Your task to perform on an android device: What's on my calendar tomorrow? Image 0: 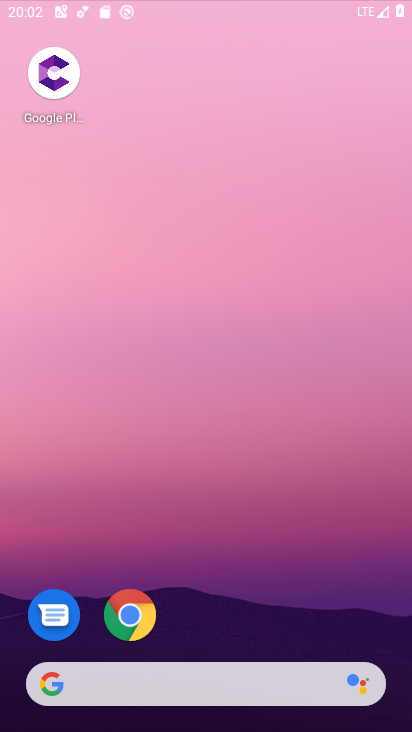
Step 0: click (339, 17)
Your task to perform on an android device: What's on my calendar tomorrow? Image 1: 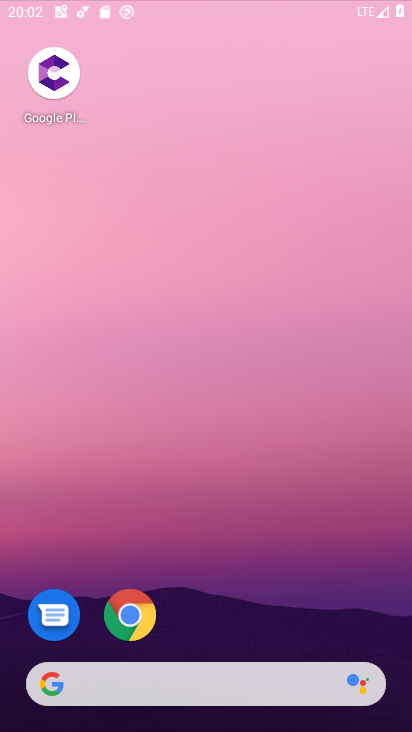
Step 1: drag from (198, 655) to (297, 118)
Your task to perform on an android device: What's on my calendar tomorrow? Image 2: 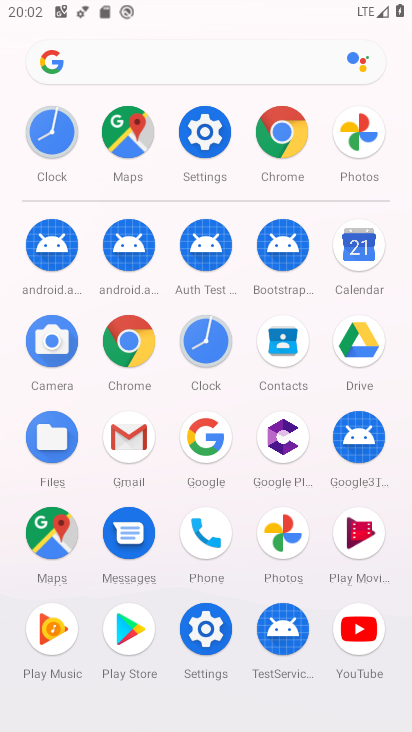
Step 2: drag from (172, 609) to (217, 119)
Your task to perform on an android device: What's on my calendar tomorrow? Image 3: 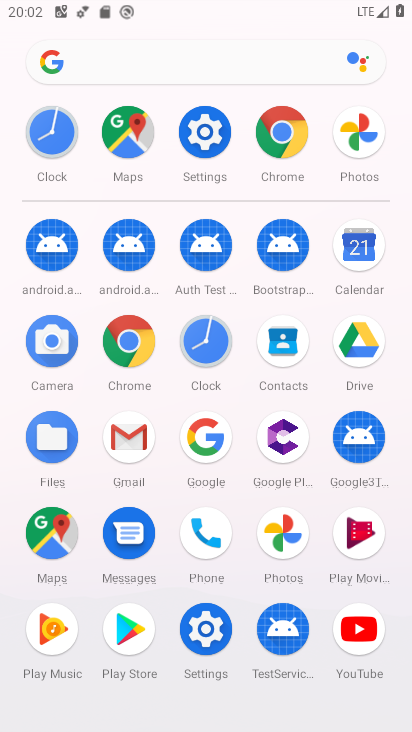
Step 3: drag from (168, 594) to (218, 137)
Your task to perform on an android device: What's on my calendar tomorrow? Image 4: 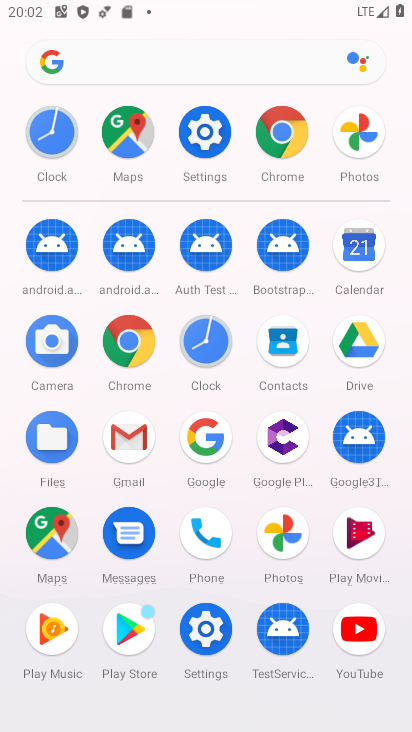
Step 4: click (362, 247)
Your task to perform on an android device: What's on my calendar tomorrow? Image 5: 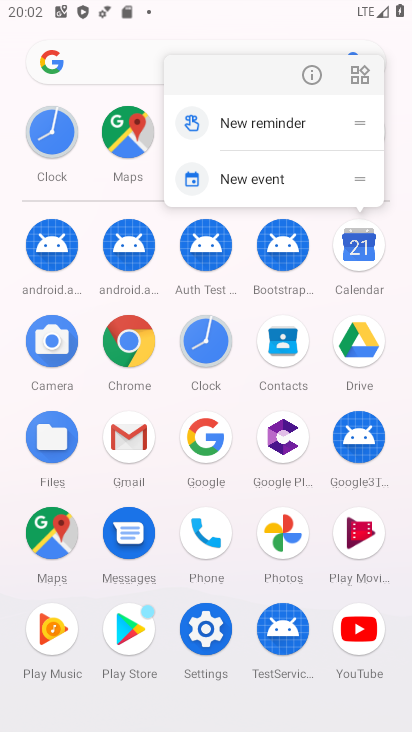
Step 5: click (310, 77)
Your task to perform on an android device: What's on my calendar tomorrow? Image 6: 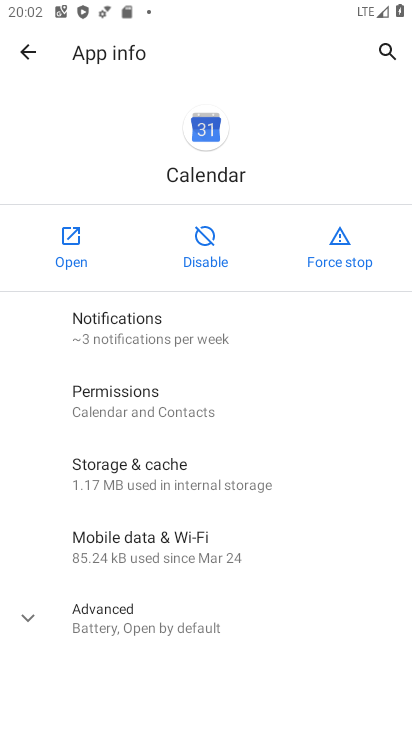
Step 6: click (79, 239)
Your task to perform on an android device: What's on my calendar tomorrow? Image 7: 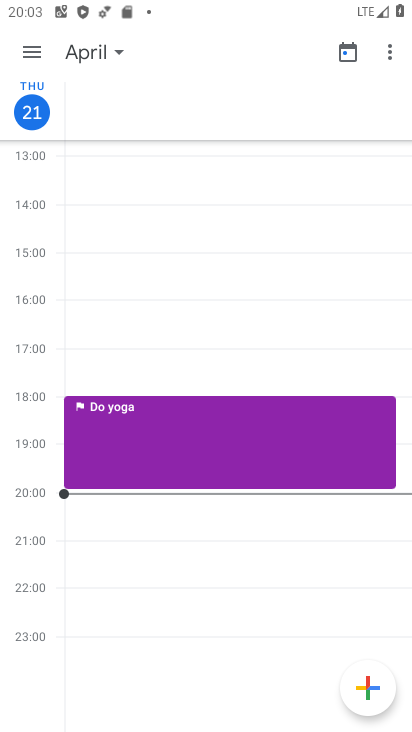
Step 7: click (43, 49)
Your task to perform on an android device: What's on my calendar tomorrow? Image 8: 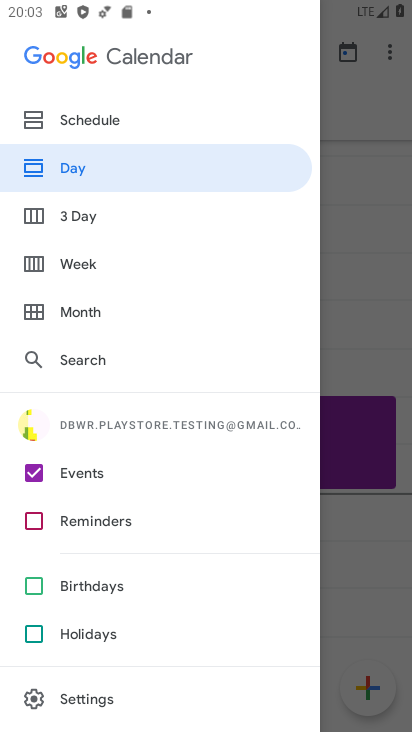
Step 8: drag from (148, 546) to (182, 142)
Your task to perform on an android device: What's on my calendar tomorrow? Image 9: 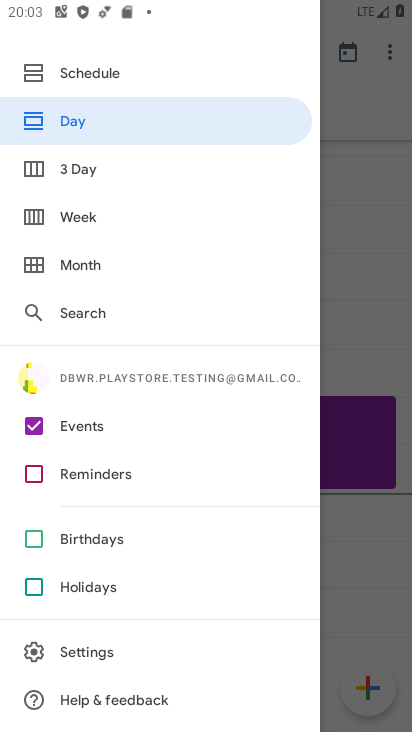
Step 9: drag from (121, 639) to (187, 190)
Your task to perform on an android device: What's on my calendar tomorrow? Image 10: 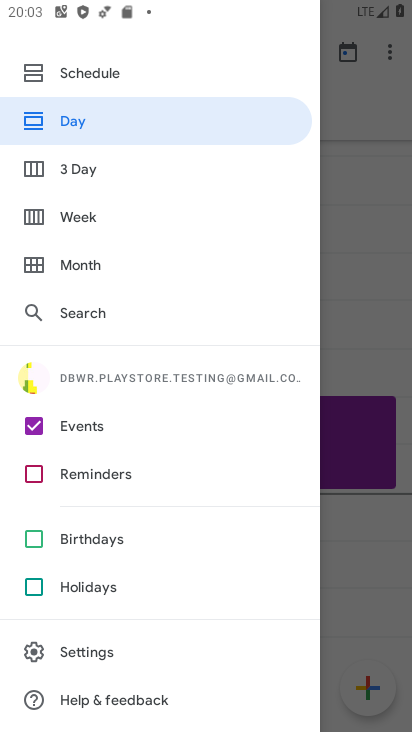
Step 10: drag from (118, 657) to (179, 37)
Your task to perform on an android device: What's on my calendar tomorrow? Image 11: 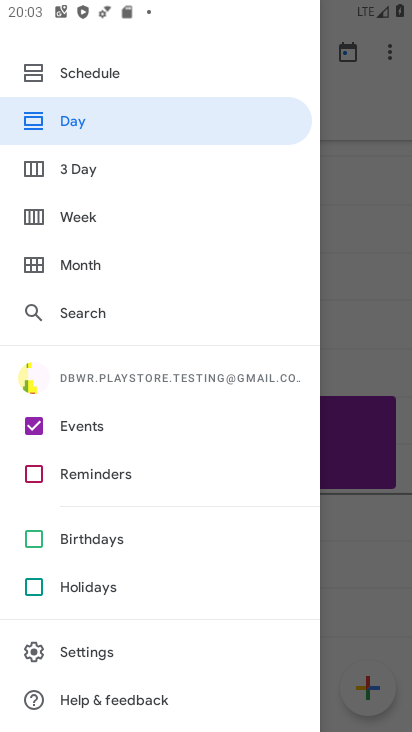
Step 11: drag from (143, 153) to (198, 721)
Your task to perform on an android device: What's on my calendar tomorrow? Image 12: 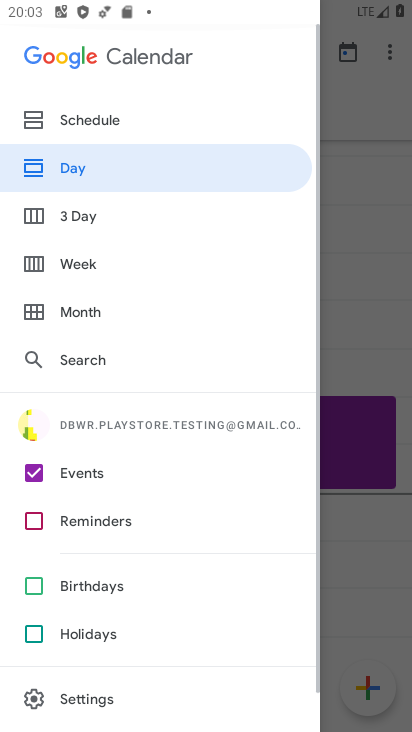
Step 12: drag from (199, 661) to (210, 131)
Your task to perform on an android device: What's on my calendar tomorrow? Image 13: 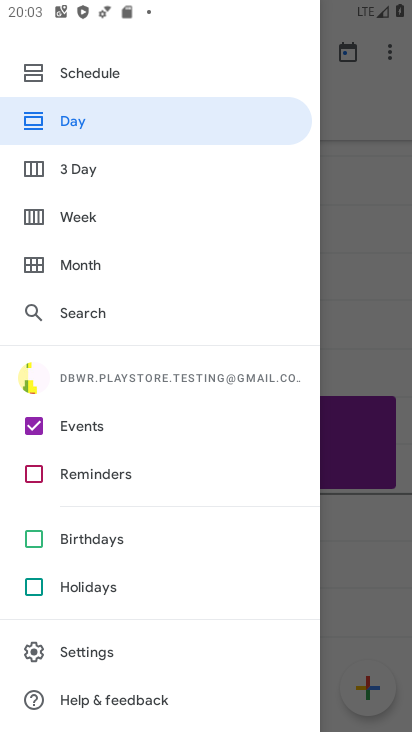
Step 13: drag from (136, 594) to (203, 225)
Your task to perform on an android device: What's on my calendar tomorrow? Image 14: 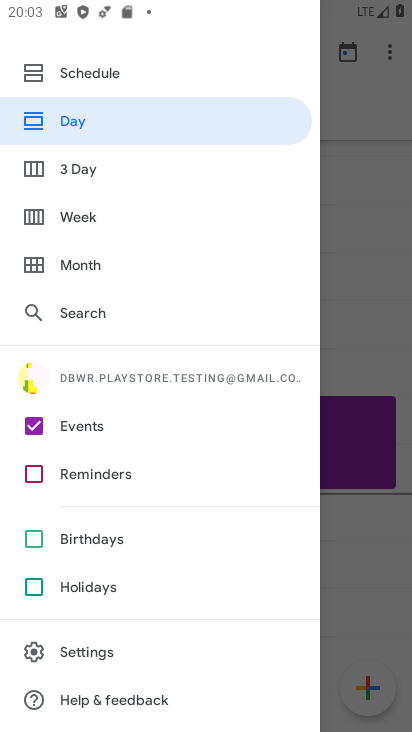
Step 14: drag from (120, 215) to (146, 690)
Your task to perform on an android device: What's on my calendar tomorrow? Image 15: 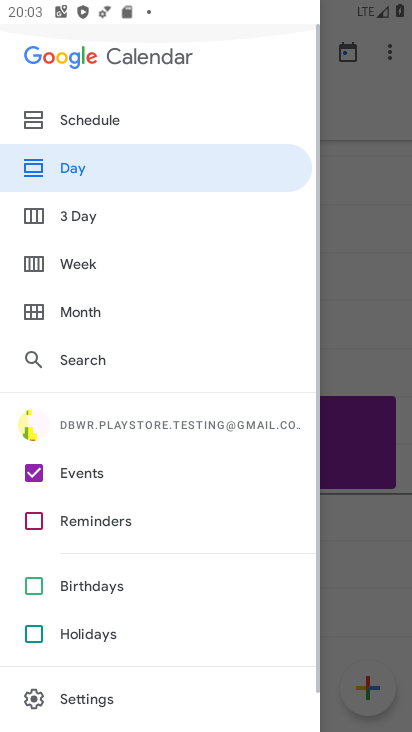
Step 15: drag from (149, 685) to (258, 174)
Your task to perform on an android device: What's on my calendar tomorrow? Image 16: 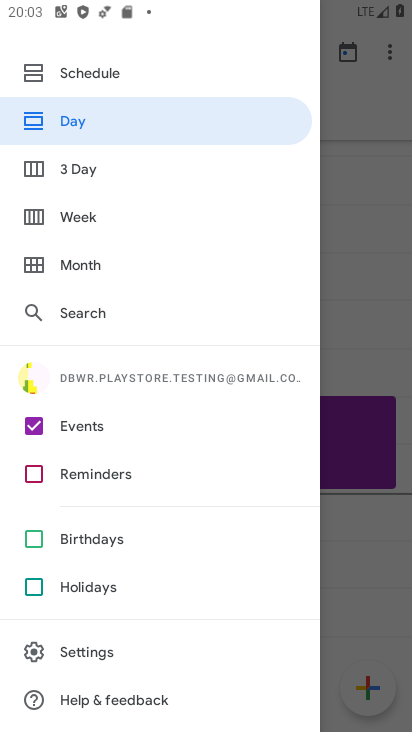
Step 16: click (354, 109)
Your task to perform on an android device: What's on my calendar tomorrow? Image 17: 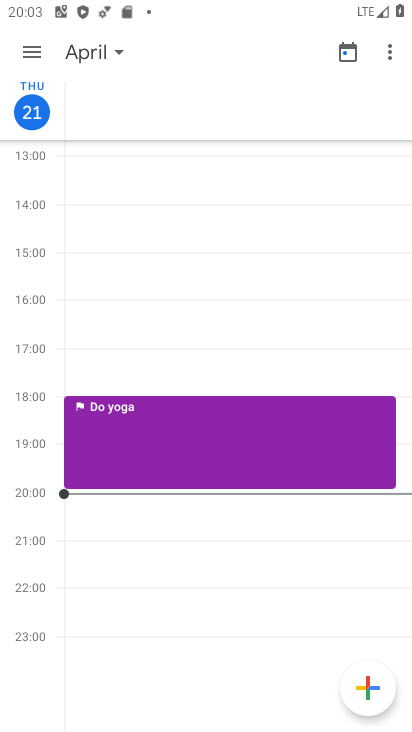
Step 17: click (102, 28)
Your task to perform on an android device: What's on my calendar tomorrow? Image 18: 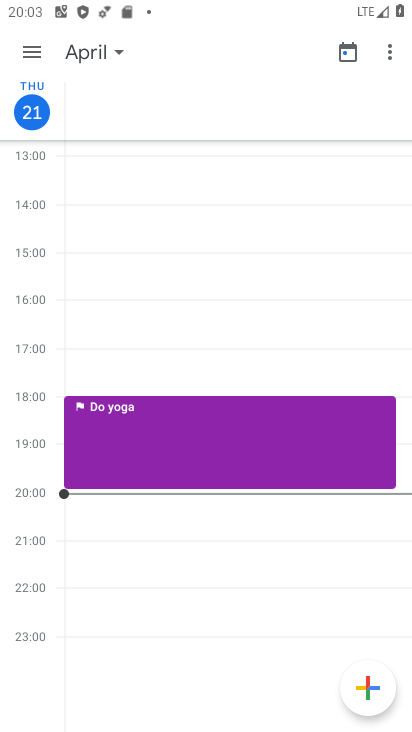
Step 18: click (101, 48)
Your task to perform on an android device: What's on my calendar tomorrow? Image 19: 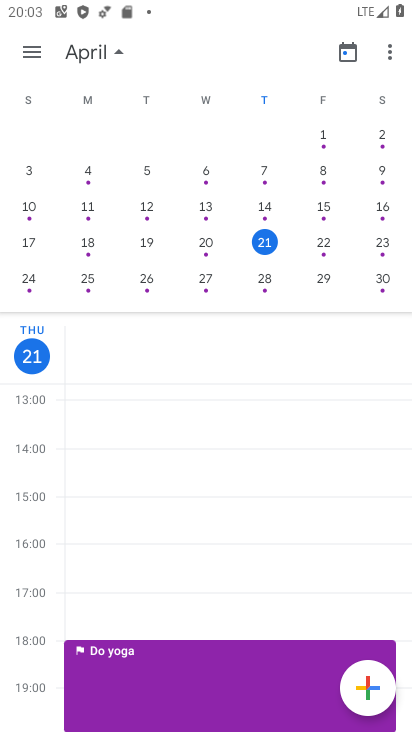
Step 19: click (322, 239)
Your task to perform on an android device: What's on my calendar tomorrow? Image 20: 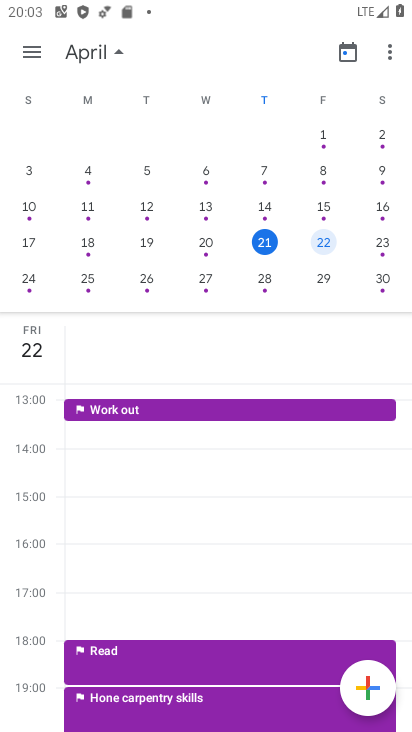
Step 20: task complete